Your task to perform on an android device: Check the news Image 0: 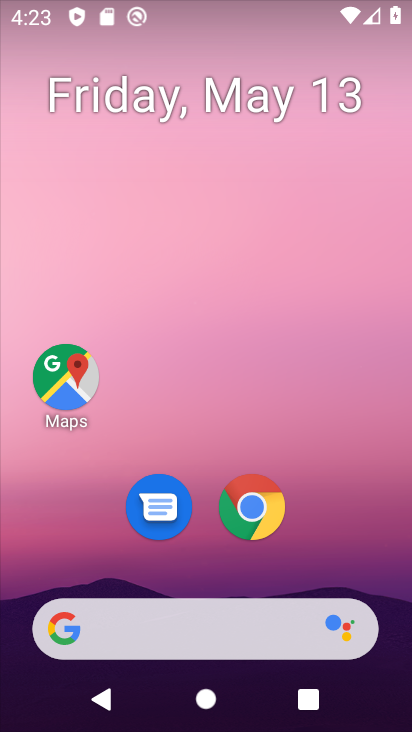
Step 0: drag from (344, 560) to (239, 87)
Your task to perform on an android device: Check the news Image 1: 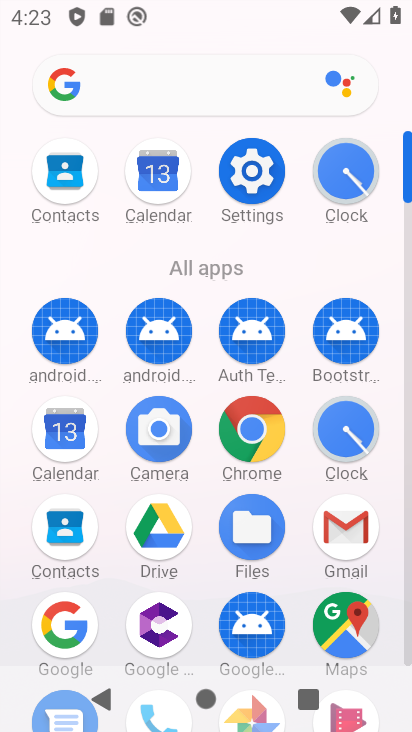
Step 1: click (65, 621)
Your task to perform on an android device: Check the news Image 2: 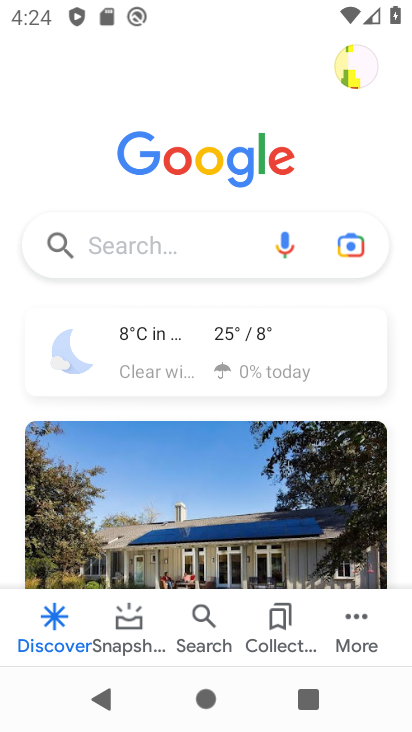
Step 2: click (170, 243)
Your task to perform on an android device: Check the news Image 3: 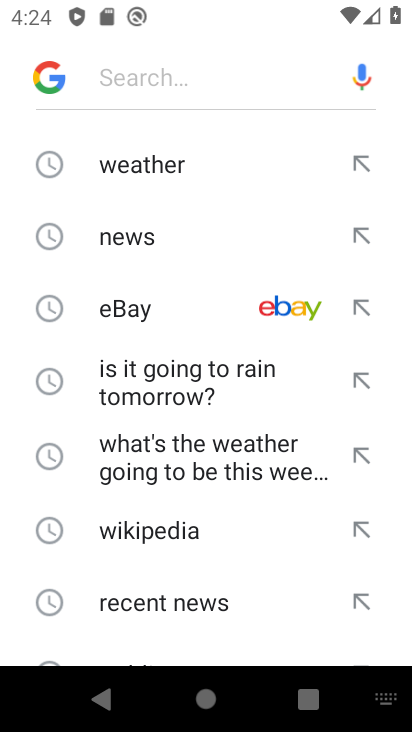
Step 3: click (138, 249)
Your task to perform on an android device: Check the news Image 4: 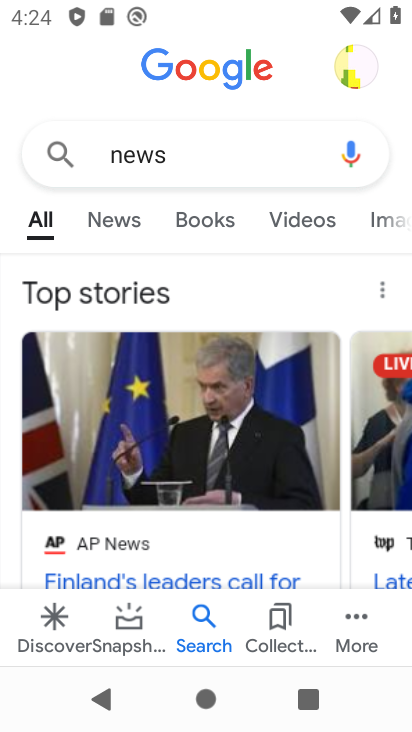
Step 4: task complete